Your task to perform on an android device: Clear the cart on walmart. Search for usb-c to usb-b on walmart, select the first entry, add it to the cart, then select checkout. Image 0: 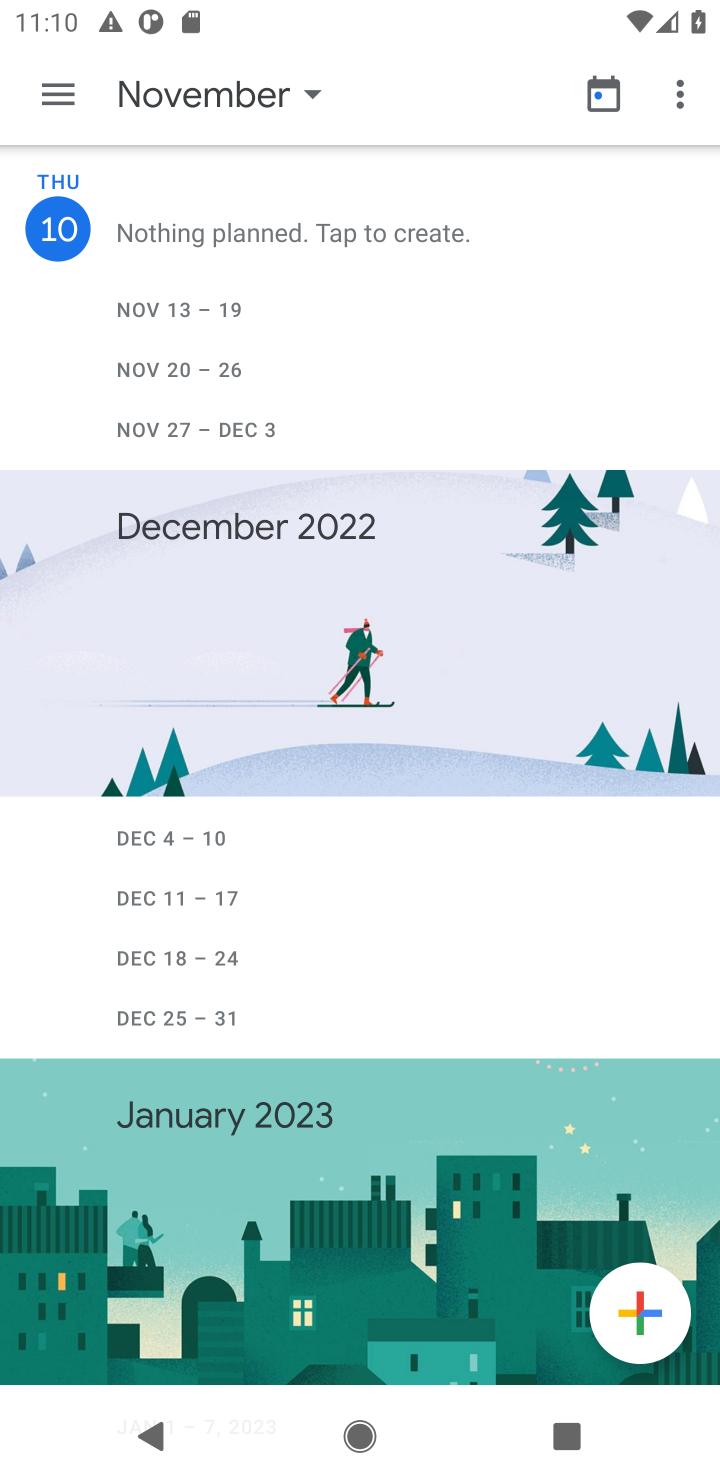
Step 0: press home button
Your task to perform on an android device: Clear the cart on walmart. Search for usb-c to usb-b on walmart, select the first entry, add it to the cart, then select checkout. Image 1: 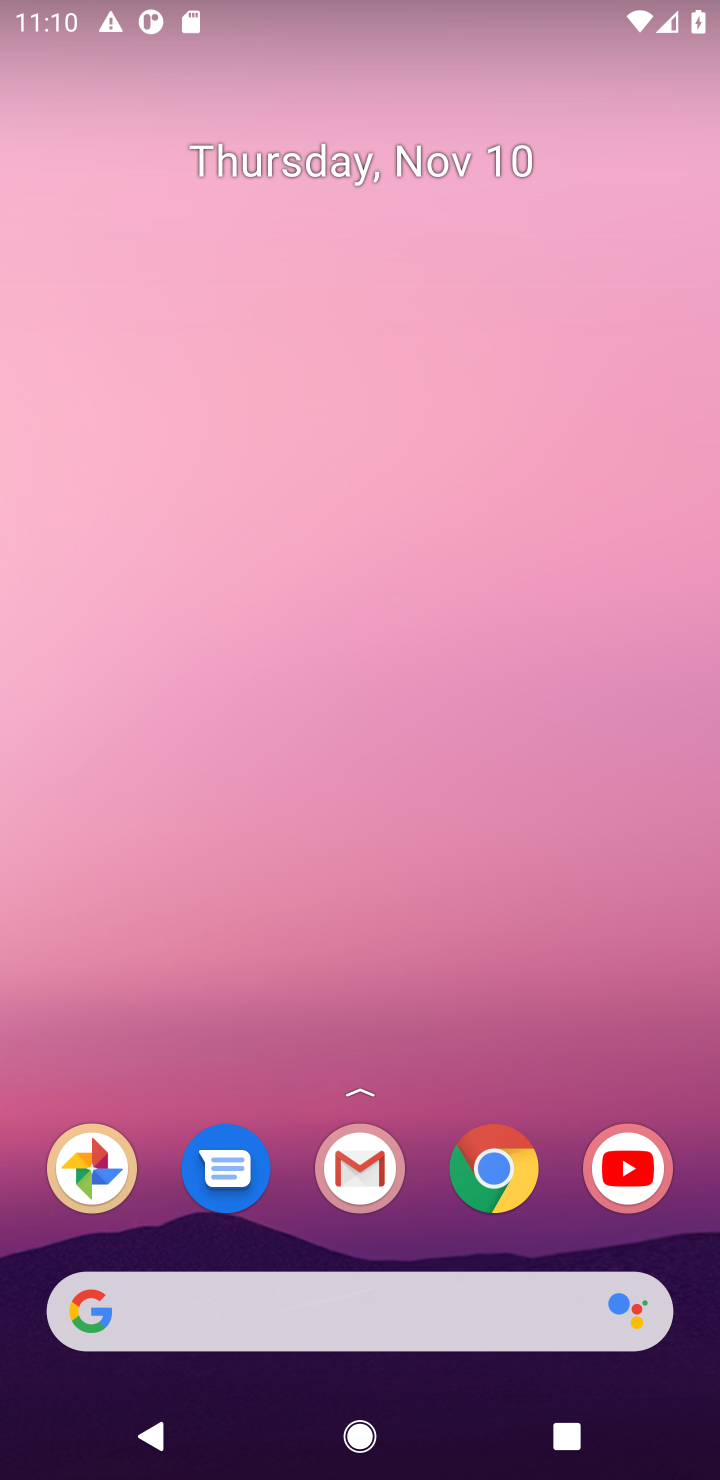
Step 1: click (489, 1180)
Your task to perform on an android device: Clear the cart on walmart. Search for usb-c to usb-b on walmart, select the first entry, add it to the cart, then select checkout. Image 2: 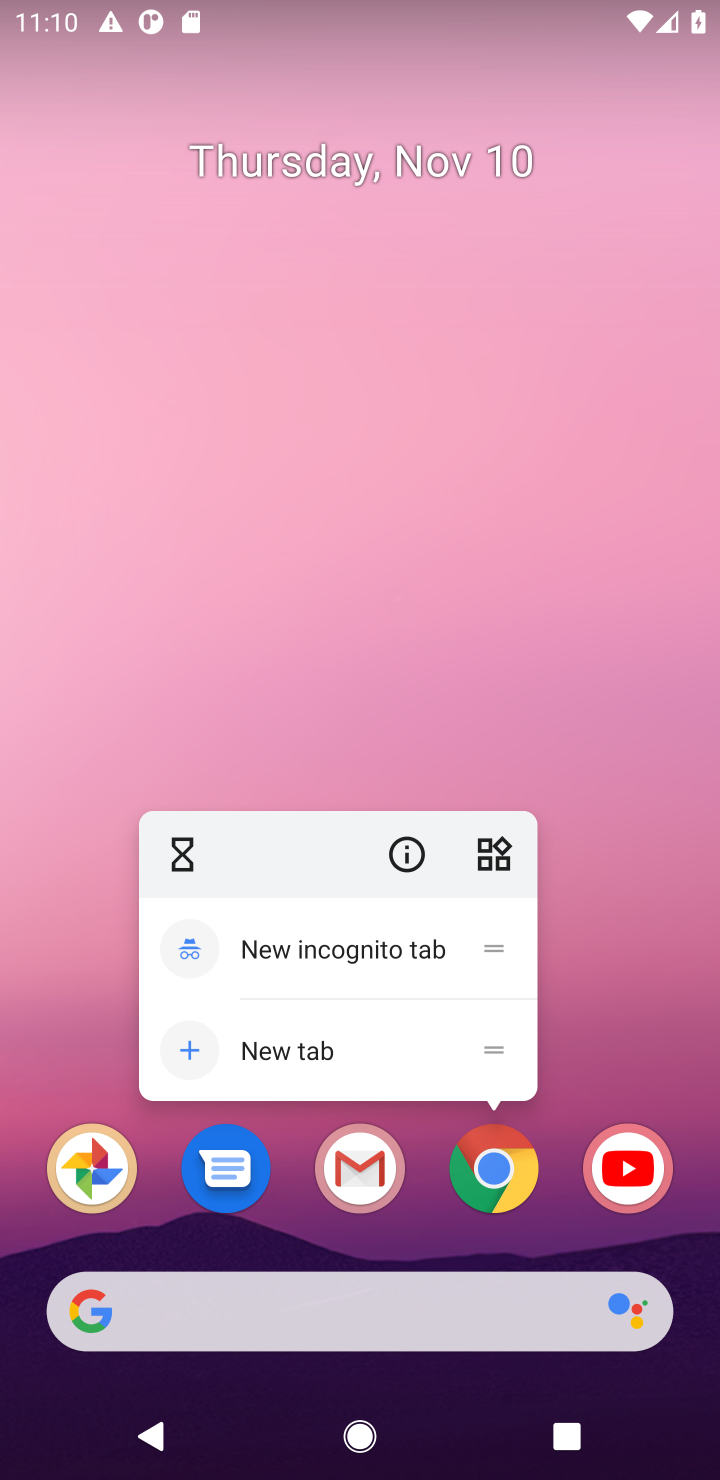
Step 2: click (489, 1180)
Your task to perform on an android device: Clear the cart on walmart. Search for usb-c to usb-b on walmart, select the first entry, add it to the cart, then select checkout. Image 3: 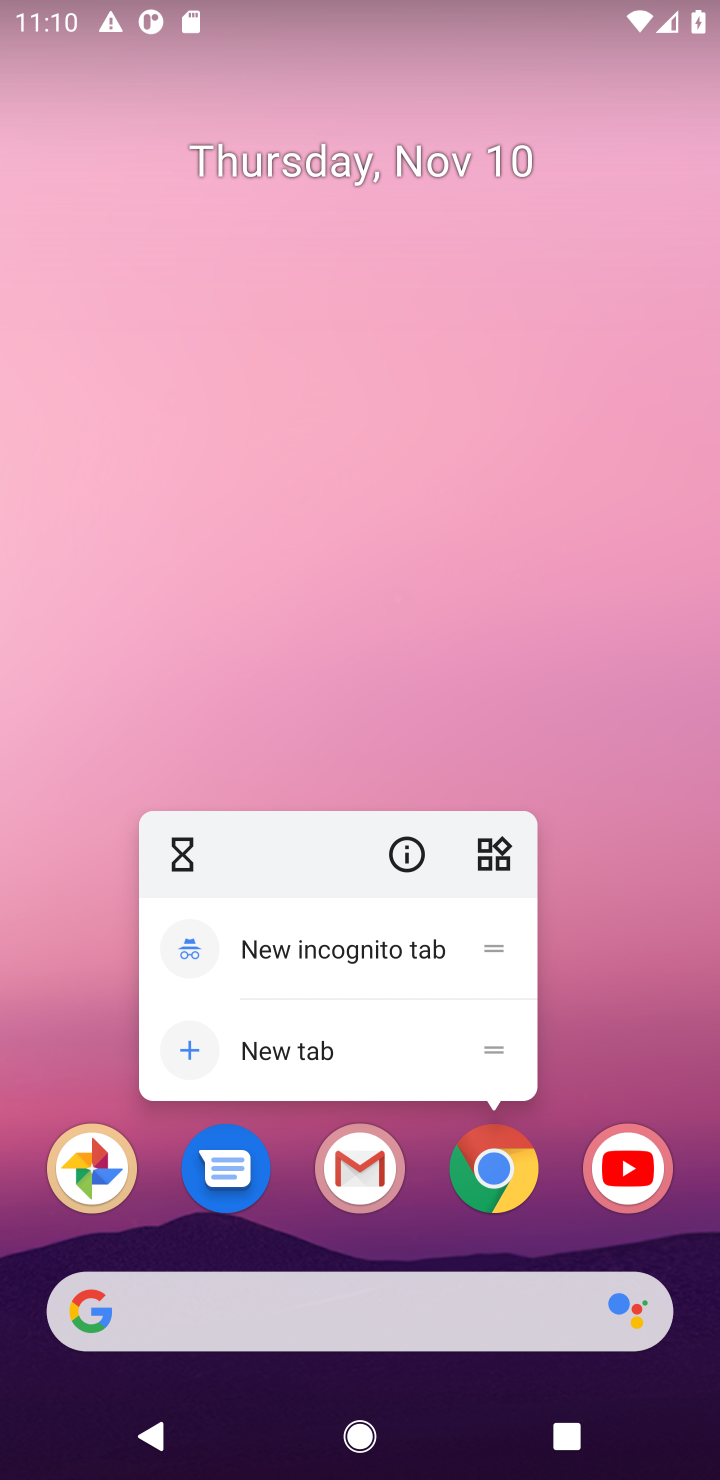
Step 3: click (491, 1180)
Your task to perform on an android device: Clear the cart on walmart. Search for usb-c to usb-b on walmart, select the first entry, add it to the cart, then select checkout. Image 4: 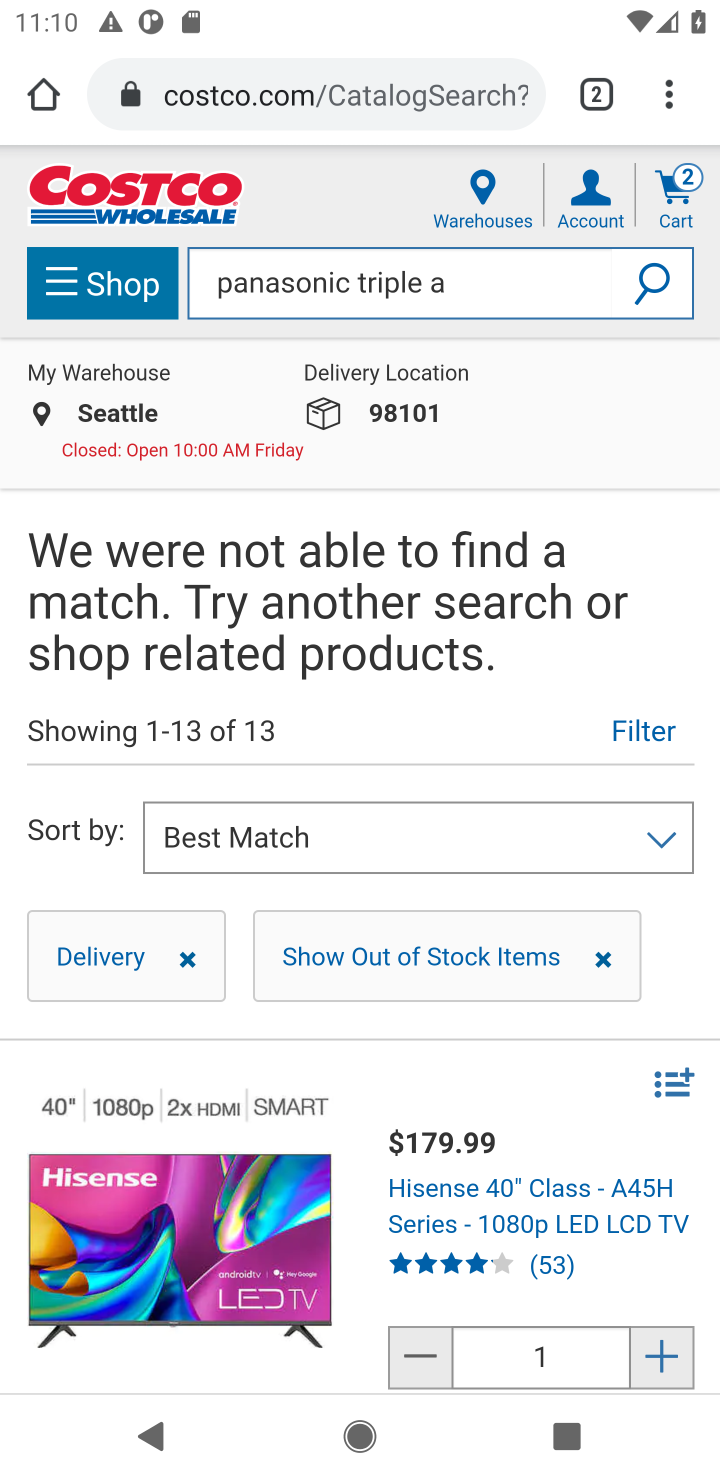
Step 4: click (344, 96)
Your task to perform on an android device: Clear the cart on walmart. Search for usb-c to usb-b on walmart, select the first entry, add it to the cart, then select checkout. Image 5: 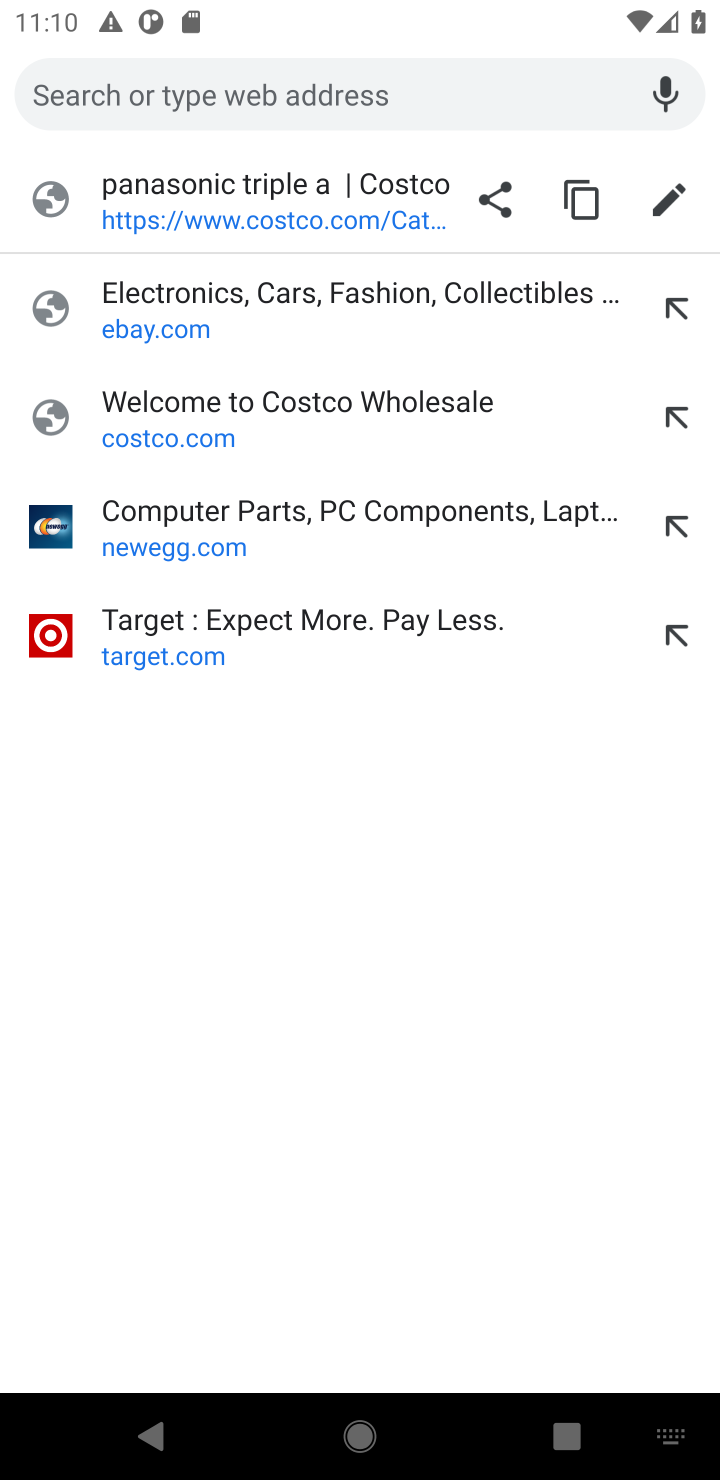
Step 5: type "walmart.com"
Your task to perform on an android device: Clear the cart on walmart. Search for usb-c to usb-b on walmart, select the first entry, add it to the cart, then select checkout. Image 6: 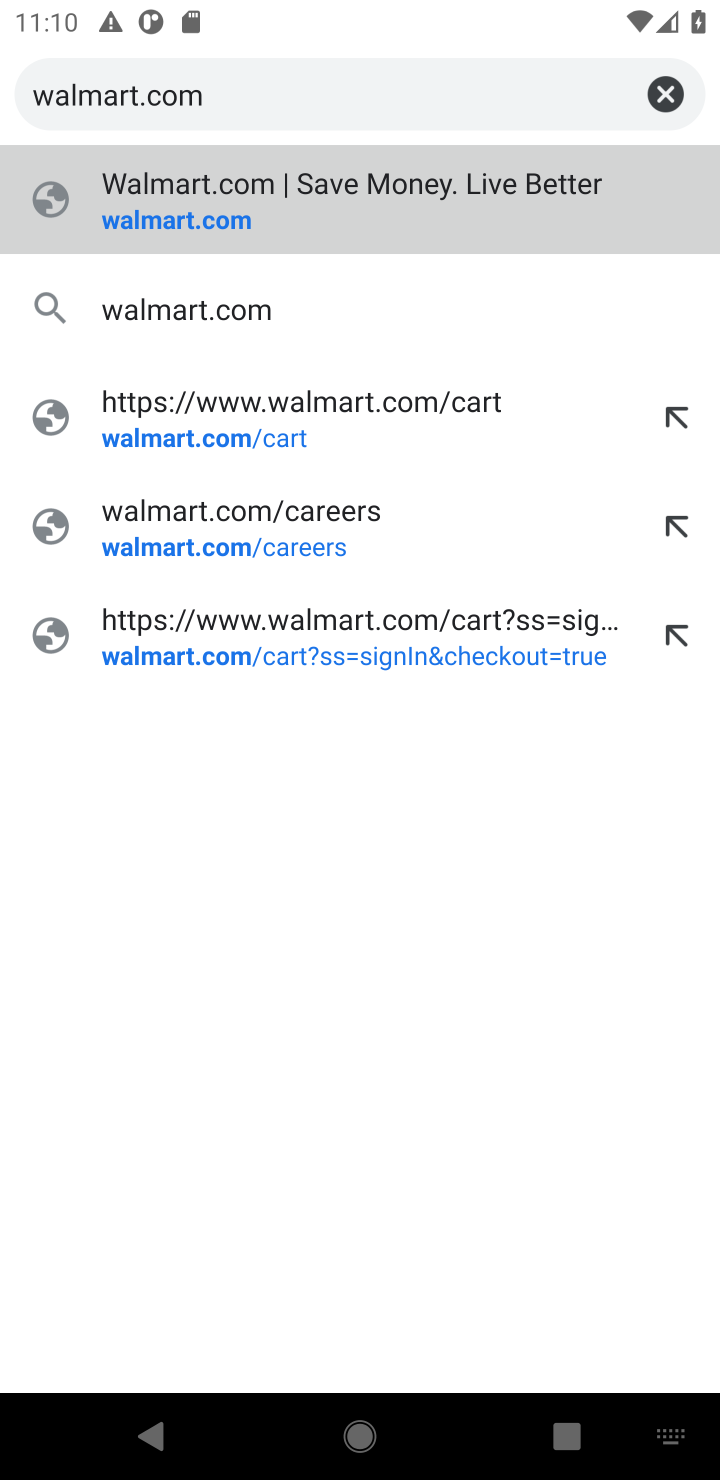
Step 6: click (158, 114)
Your task to perform on an android device: Clear the cart on walmart. Search for usb-c to usb-b on walmart, select the first entry, add it to the cart, then select checkout. Image 7: 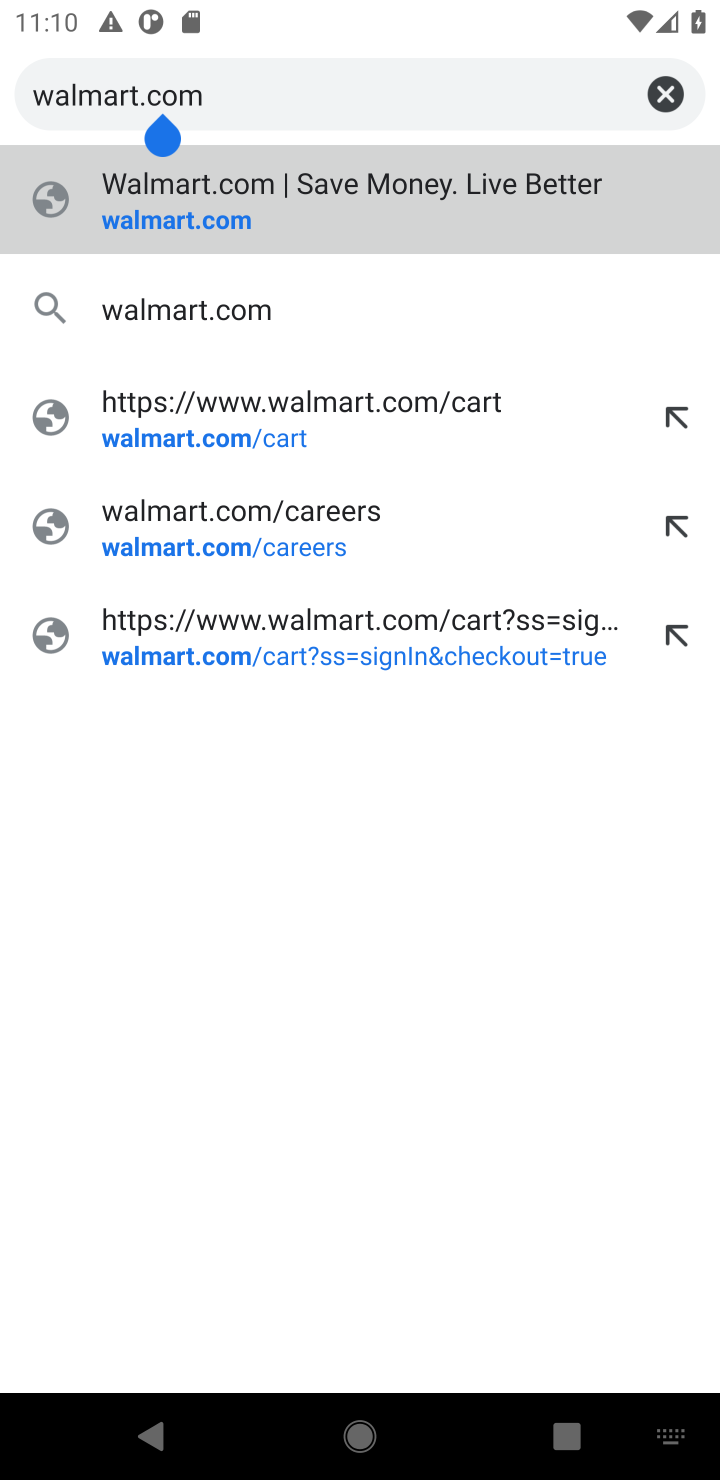
Step 7: click (158, 205)
Your task to perform on an android device: Clear the cart on walmart. Search for usb-c to usb-b on walmart, select the first entry, add it to the cart, then select checkout. Image 8: 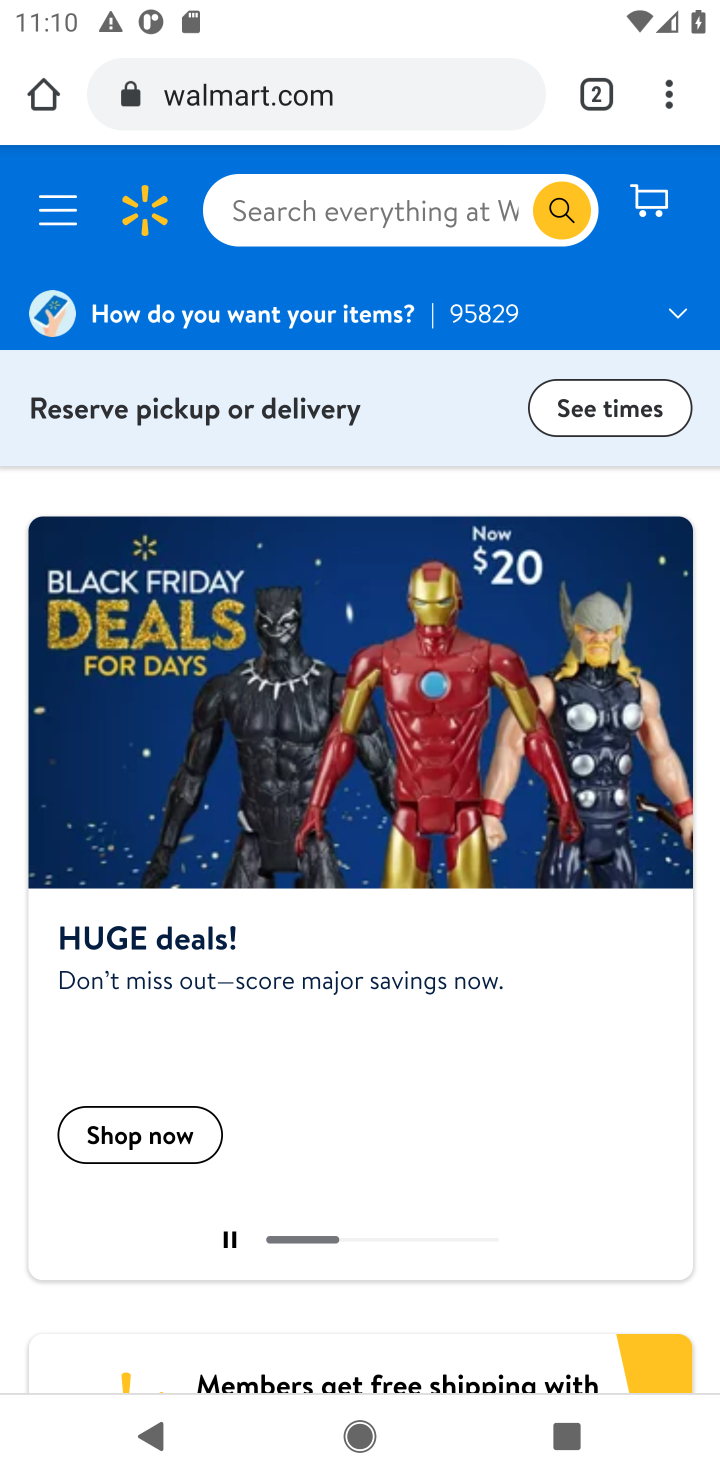
Step 8: click (659, 205)
Your task to perform on an android device: Clear the cart on walmart. Search for usb-c to usb-b on walmart, select the first entry, add it to the cart, then select checkout. Image 9: 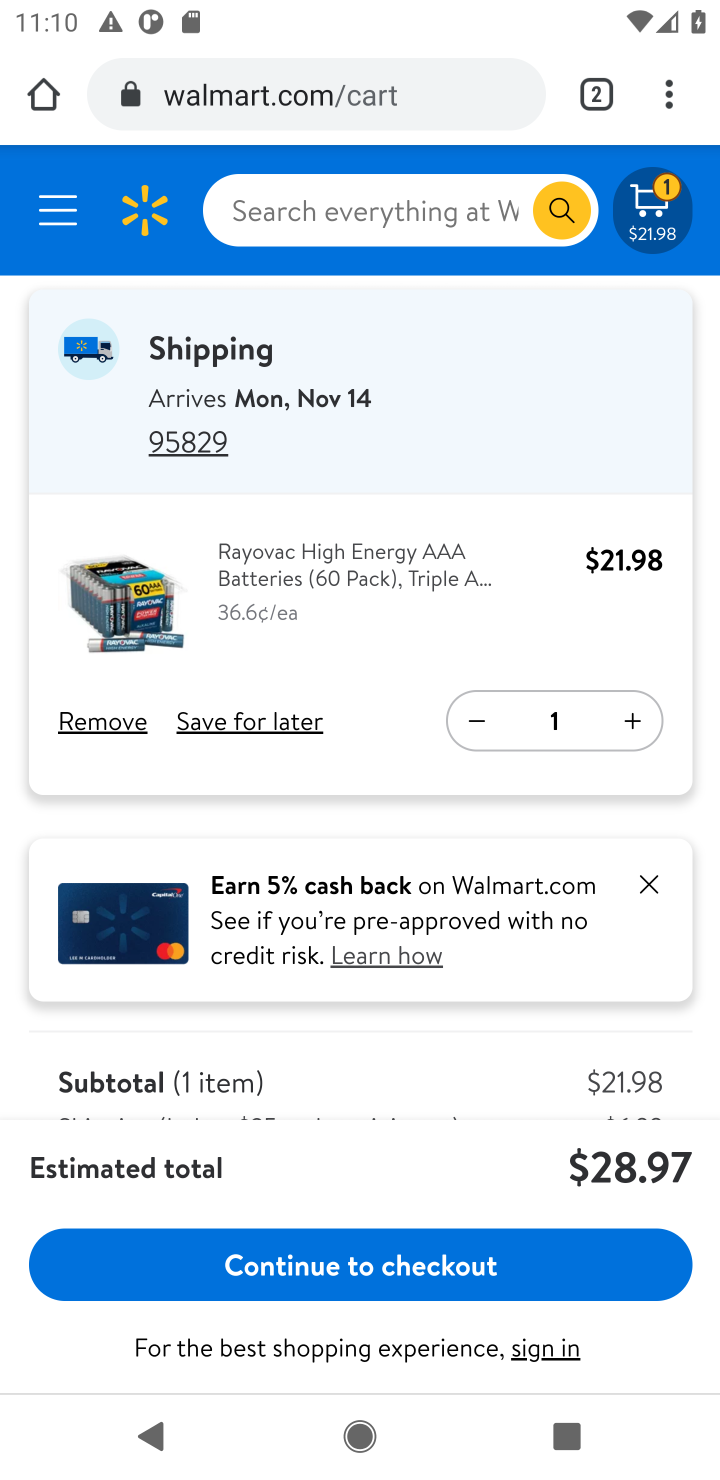
Step 9: click (116, 721)
Your task to perform on an android device: Clear the cart on walmart. Search for usb-c to usb-b on walmart, select the first entry, add it to the cart, then select checkout. Image 10: 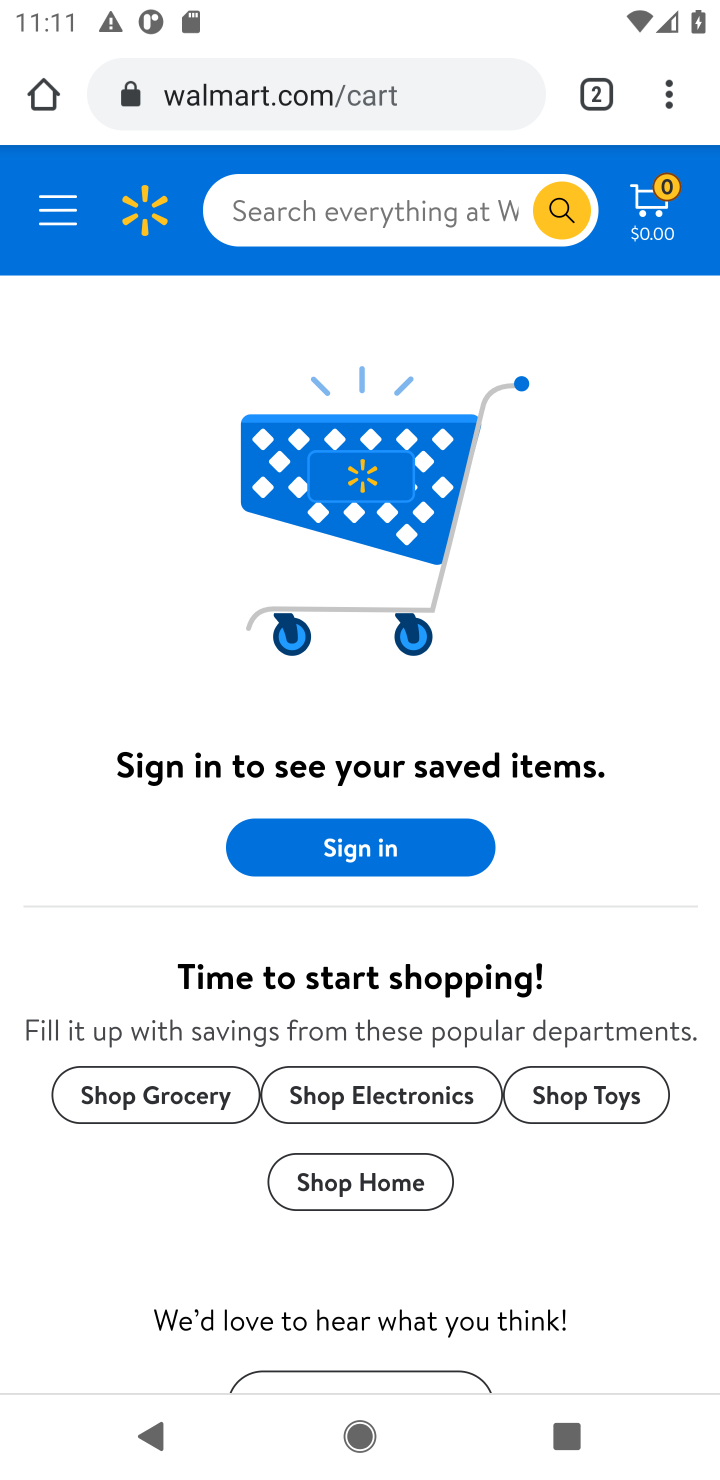
Step 10: click (335, 210)
Your task to perform on an android device: Clear the cart on walmart. Search for usb-c to usb-b on walmart, select the first entry, add it to the cart, then select checkout. Image 11: 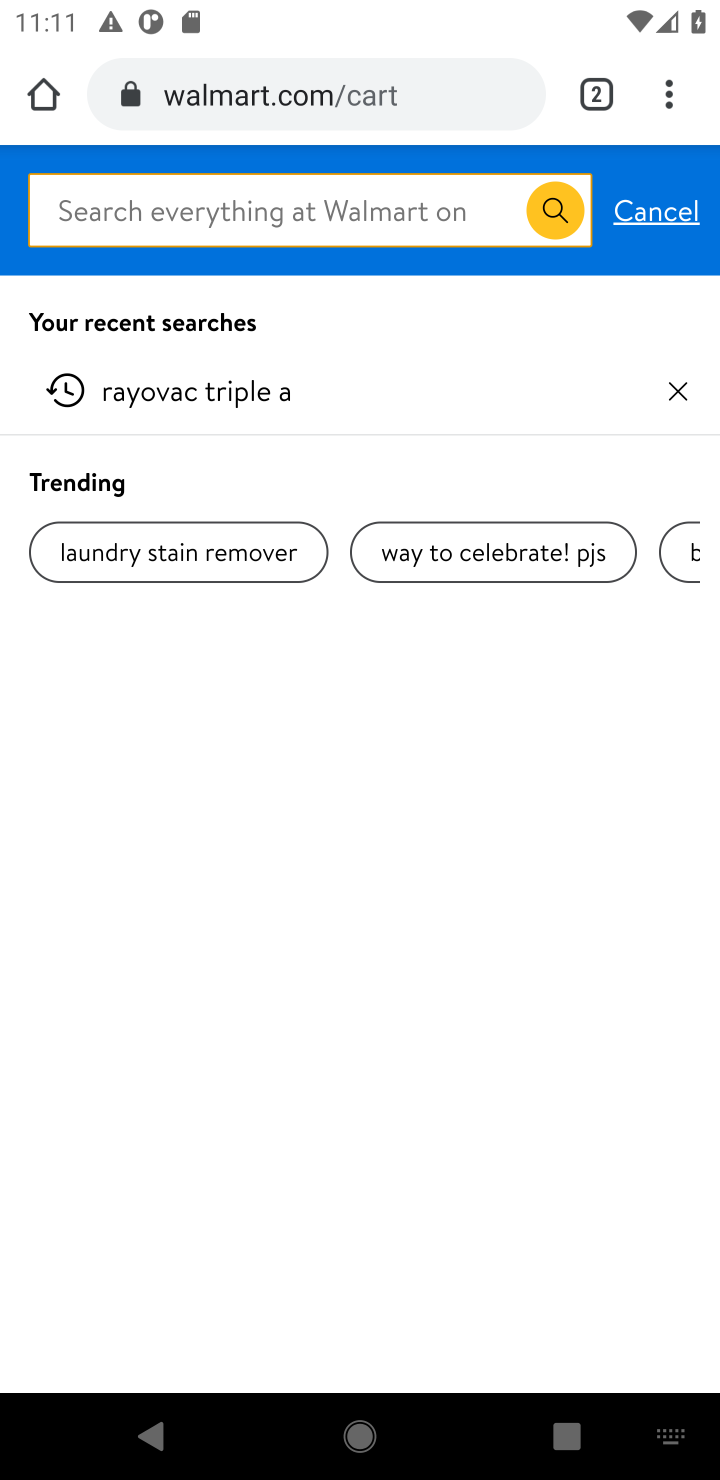
Step 11: type " usb-c to usb-b"
Your task to perform on an android device: Clear the cart on walmart. Search for usb-c to usb-b on walmart, select the first entry, add it to the cart, then select checkout. Image 12: 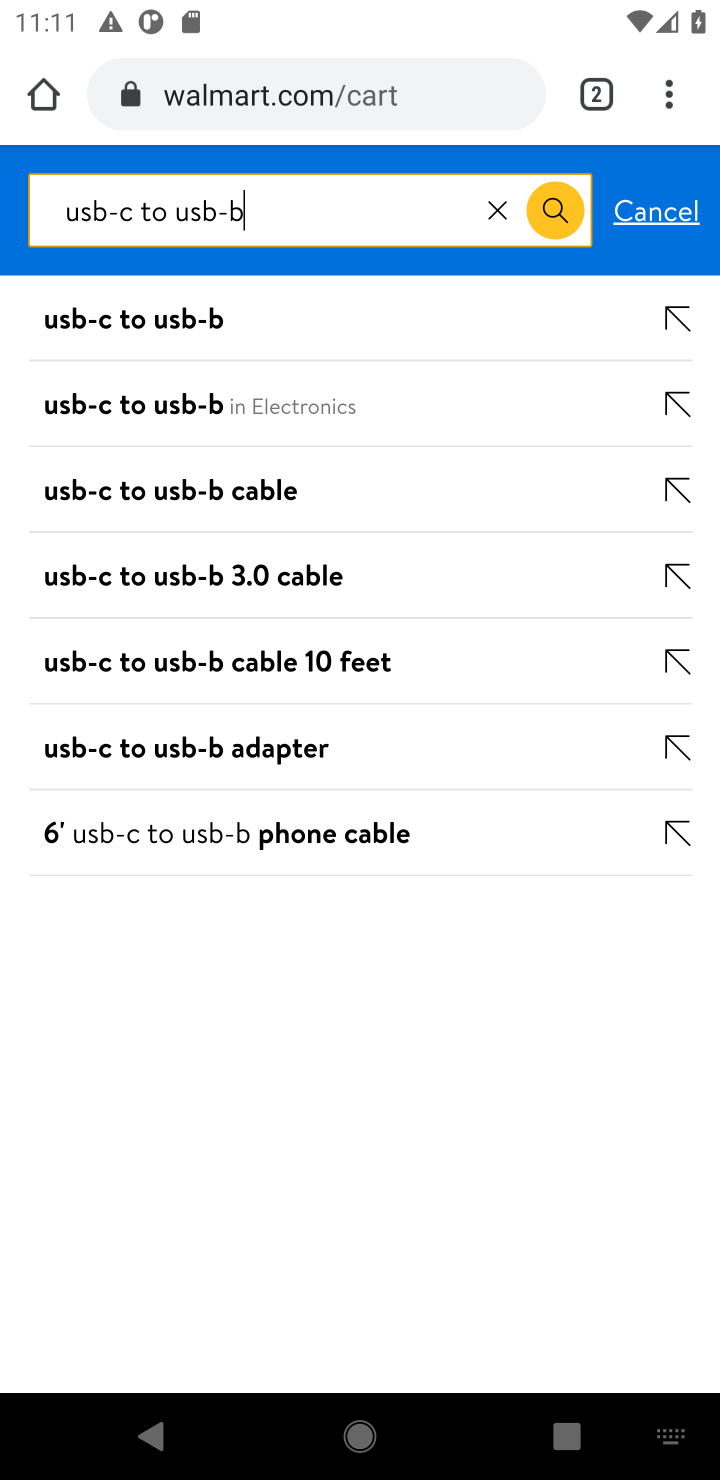
Step 12: click (141, 325)
Your task to perform on an android device: Clear the cart on walmart. Search for usb-c to usb-b on walmart, select the first entry, add it to the cart, then select checkout. Image 13: 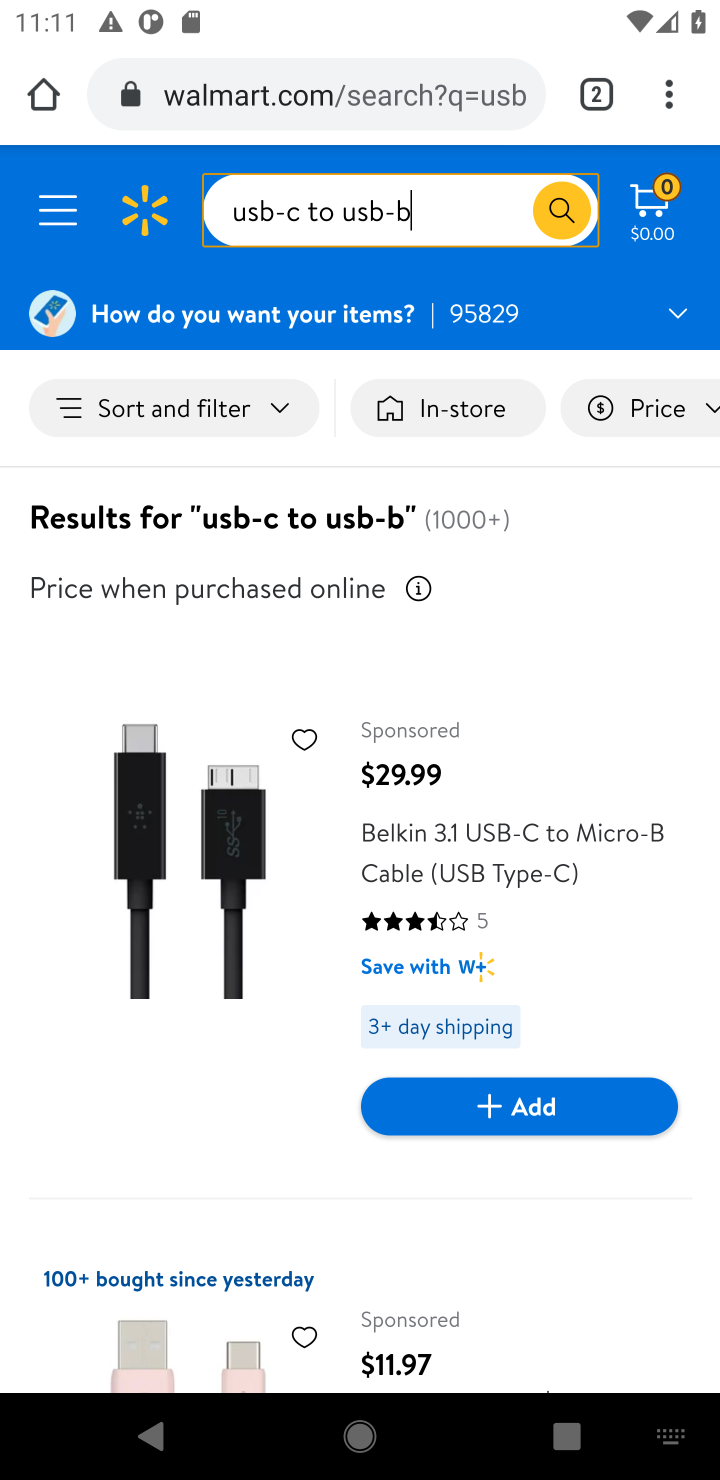
Step 13: task complete